Your task to perform on an android device: change your default location settings in chrome Image 0: 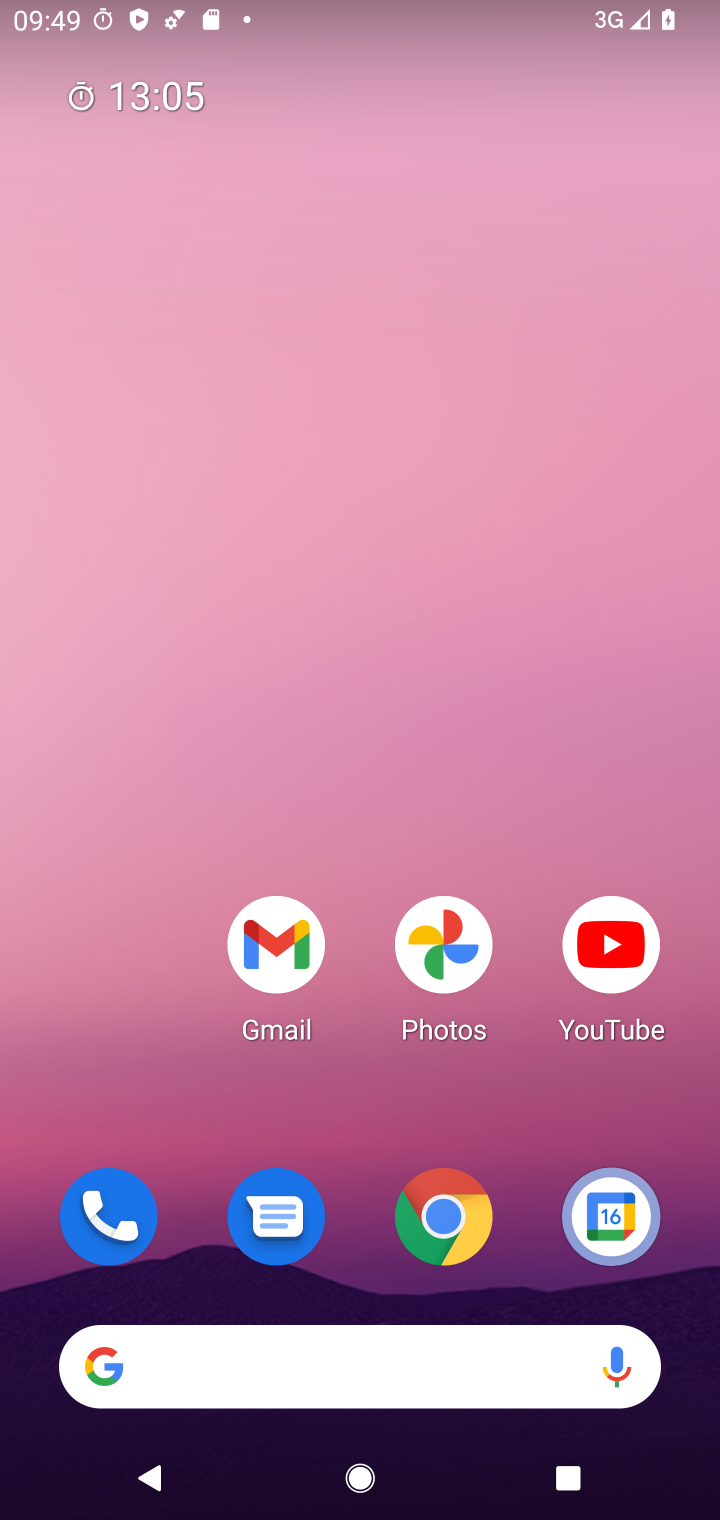
Step 0: click (442, 1222)
Your task to perform on an android device: change your default location settings in chrome Image 1: 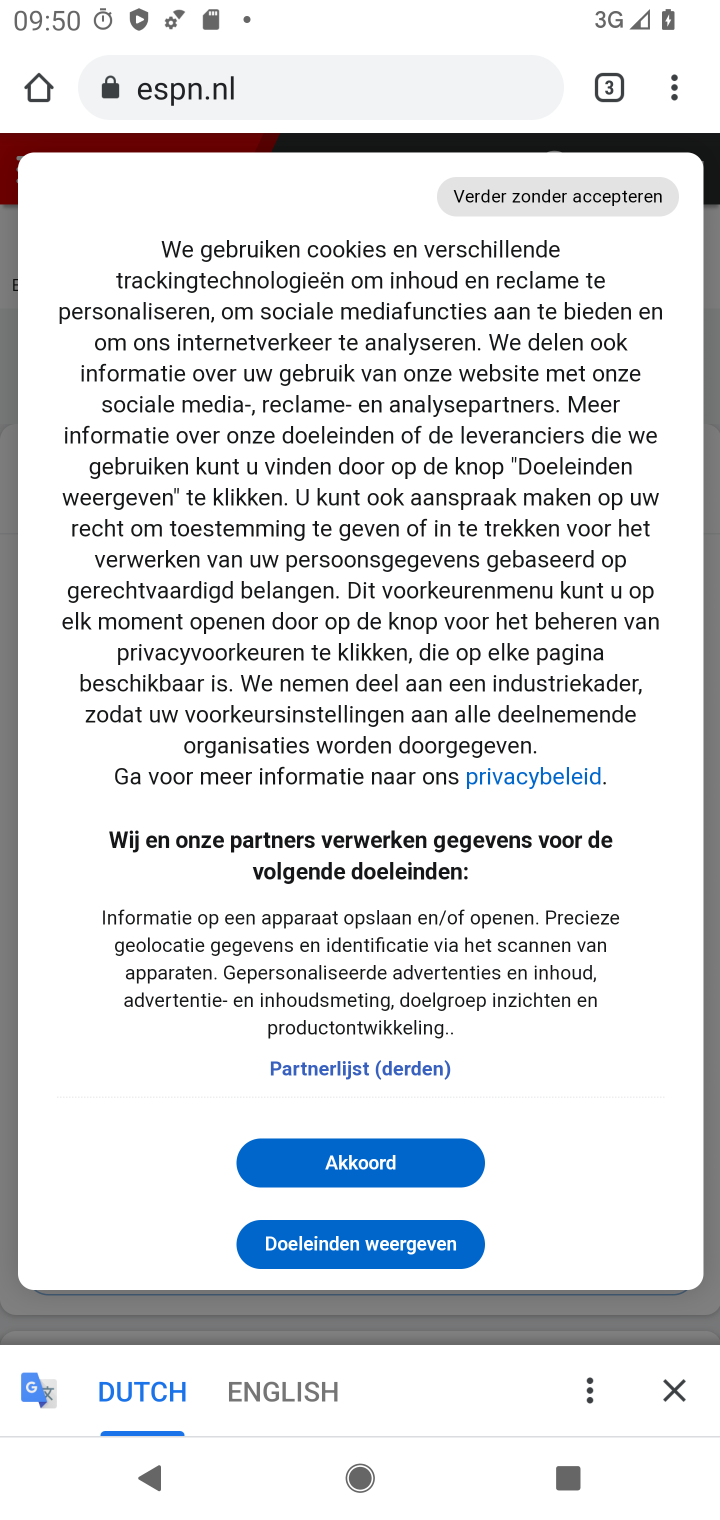
Step 1: drag from (672, 94) to (428, 1192)
Your task to perform on an android device: change your default location settings in chrome Image 2: 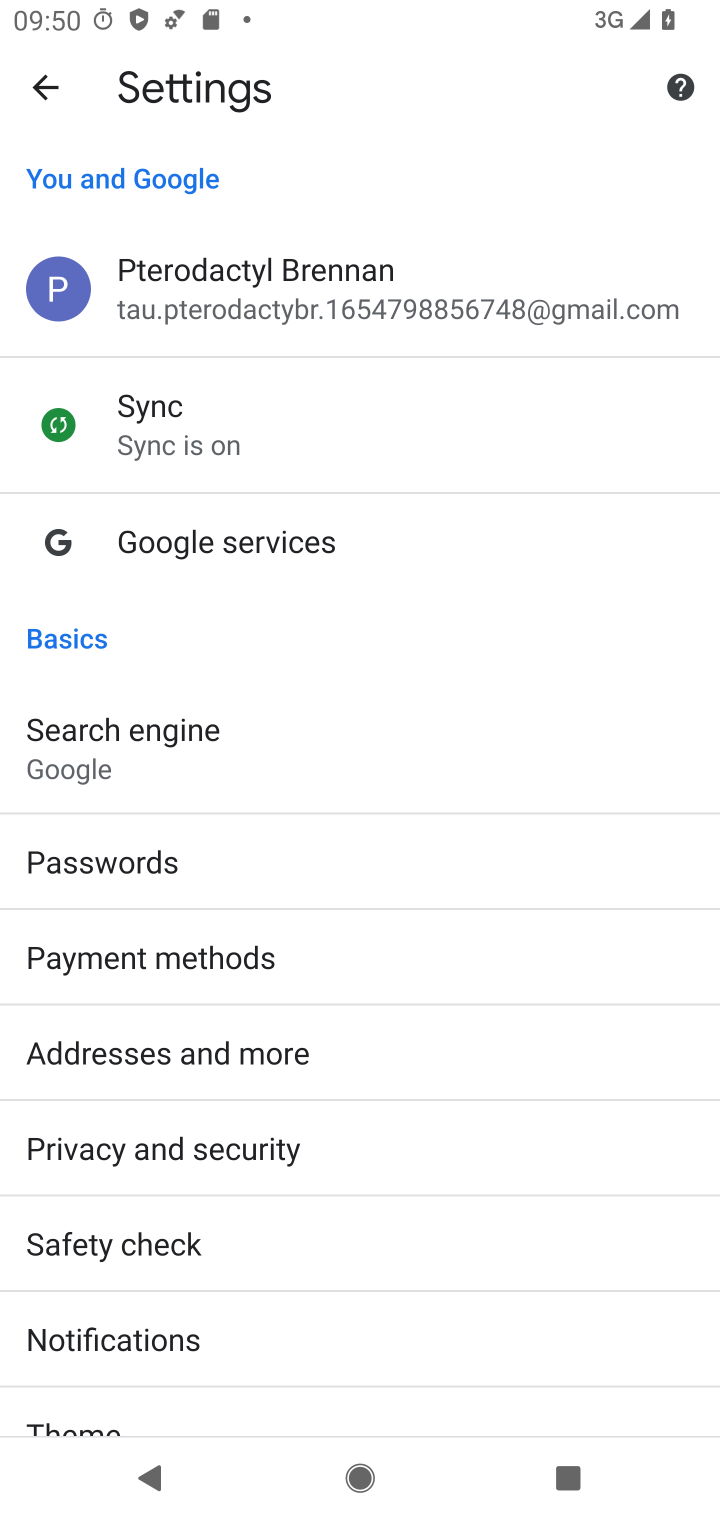
Step 2: drag from (140, 1353) to (133, 670)
Your task to perform on an android device: change your default location settings in chrome Image 3: 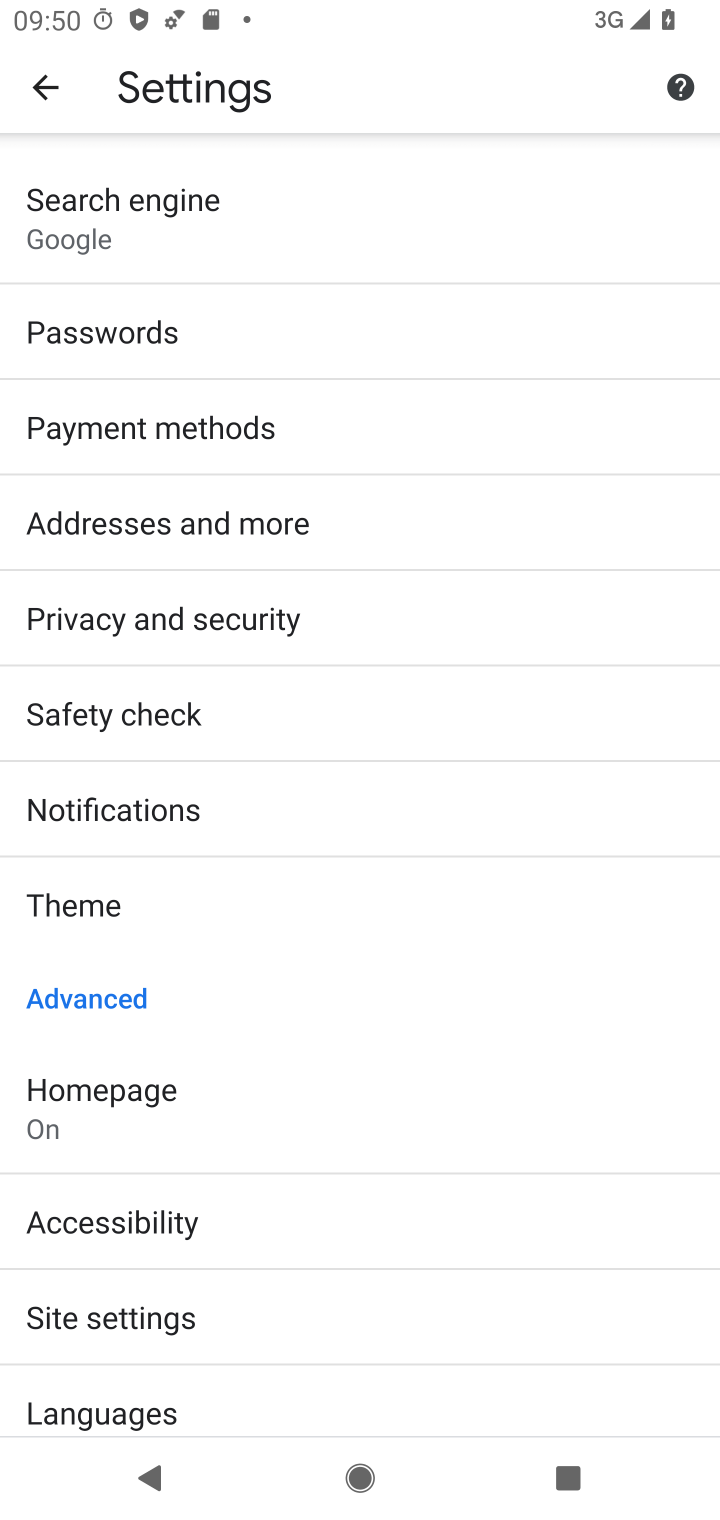
Step 3: click (110, 1312)
Your task to perform on an android device: change your default location settings in chrome Image 4: 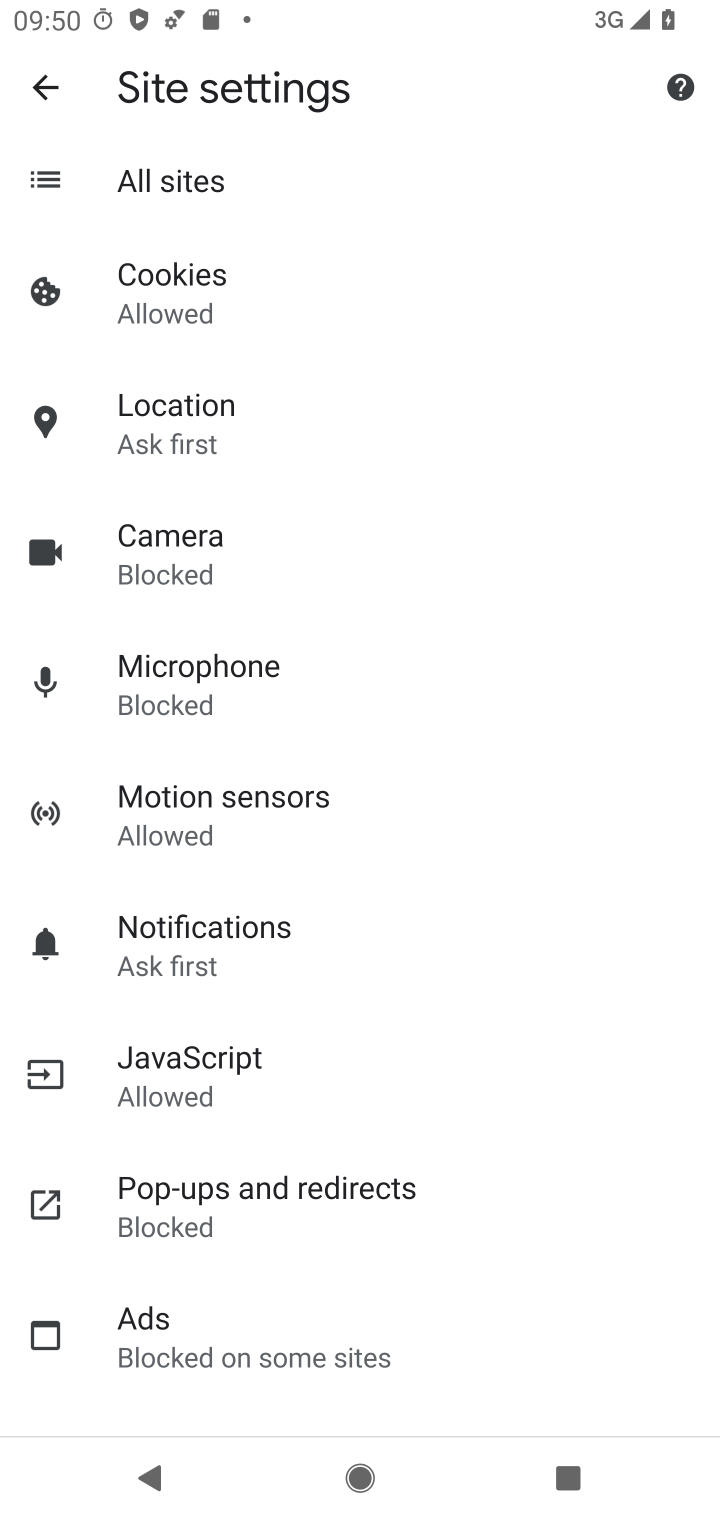
Step 4: click (162, 434)
Your task to perform on an android device: change your default location settings in chrome Image 5: 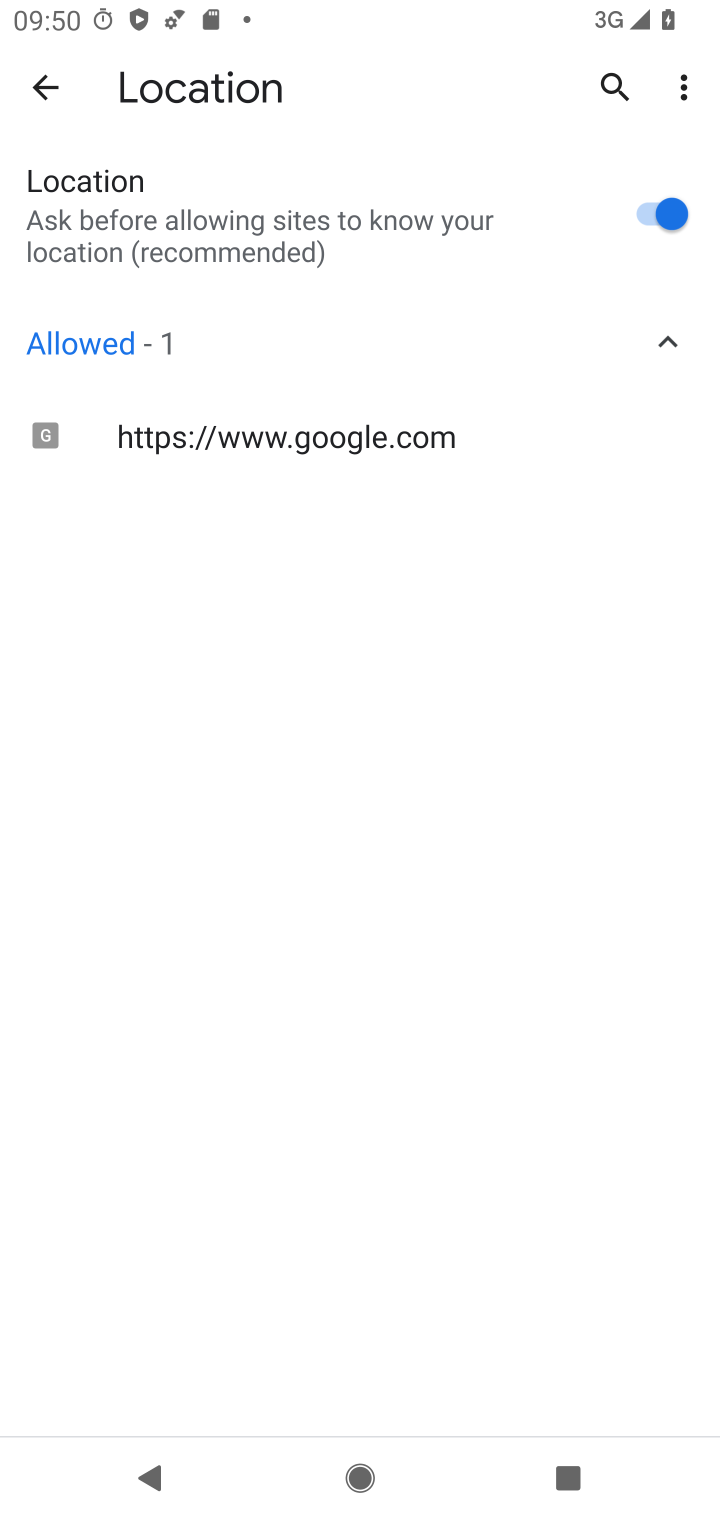
Step 5: click (660, 217)
Your task to perform on an android device: change your default location settings in chrome Image 6: 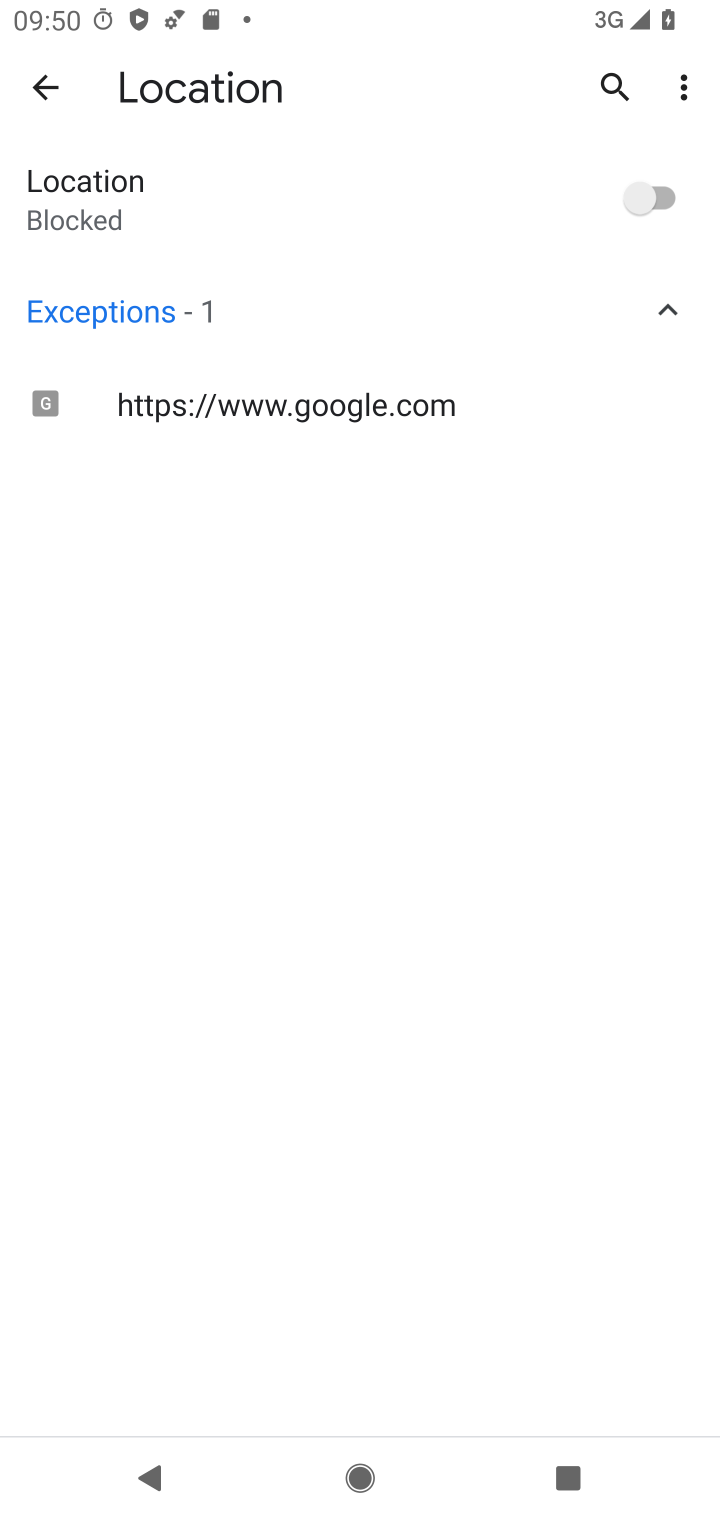
Step 6: task complete